Your task to perform on an android device: turn vacation reply on in the gmail app Image 0: 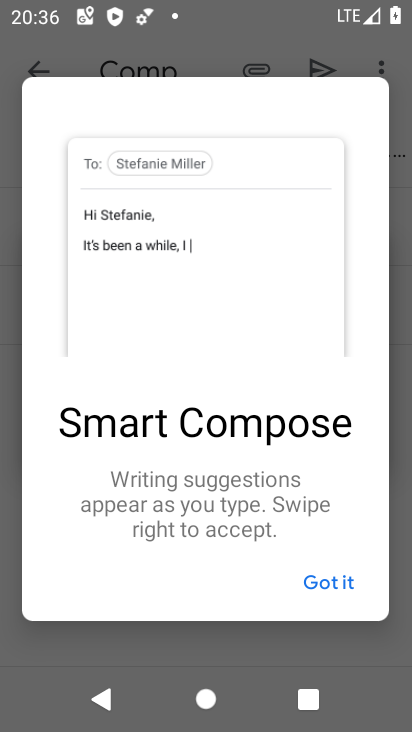
Step 0: press home button
Your task to perform on an android device: turn vacation reply on in the gmail app Image 1: 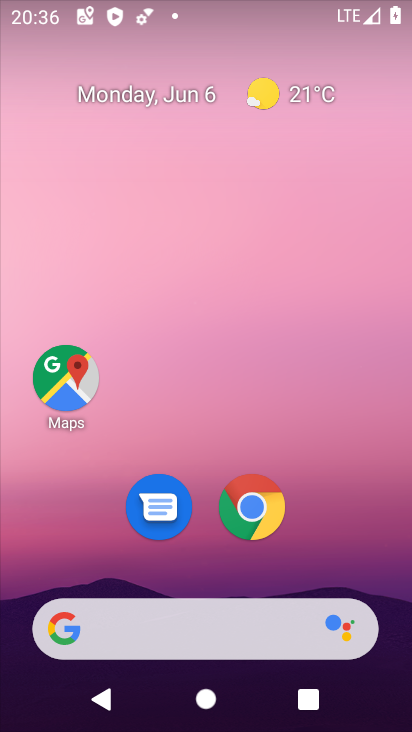
Step 1: drag from (211, 568) to (265, 11)
Your task to perform on an android device: turn vacation reply on in the gmail app Image 2: 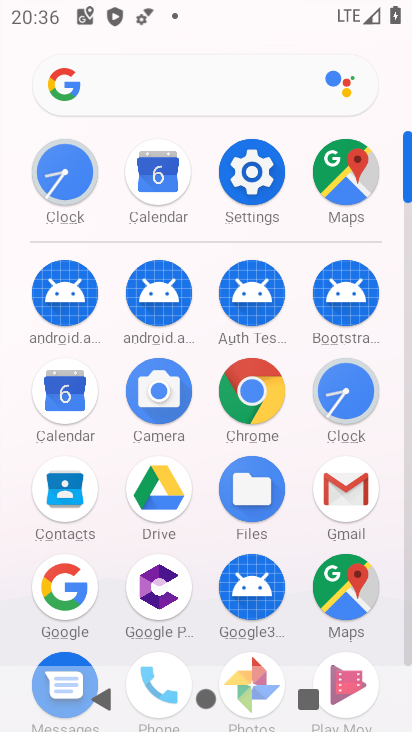
Step 2: click (351, 495)
Your task to perform on an android device: turn vacation reply on in the gmail app Image 3: 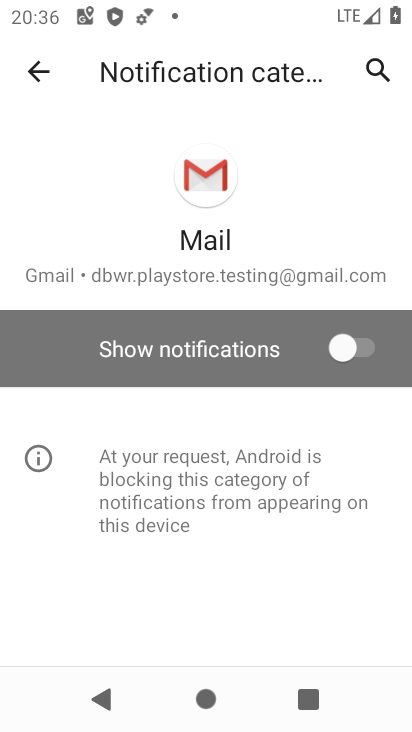
Step 3: click (46, 74)
Your task to perform on an android device: turn vacation reply on in the gmail app Image 4: 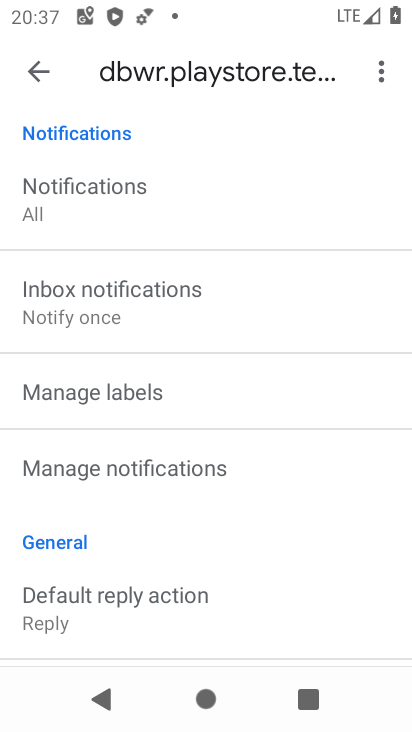
Step 4: drag from (149, 640) to (187, 132)
Your task to perform on an android device: turn vacation reply on in the gmail app Image 5: 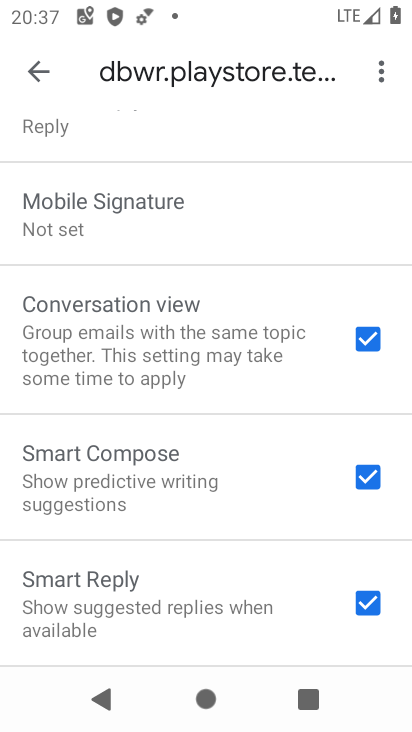
Step 5: drag from (155, 561) to (171, 134)
Your task to perform on an android device: turn vacation reply on in the gmail app Image 6: 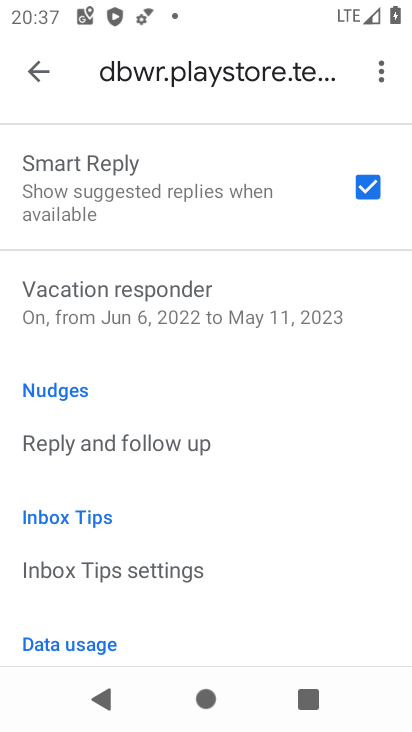
Step 6: click (170, 309)
Your task to perform on an android device: turn vacation reply on in the gmail app Image 7: 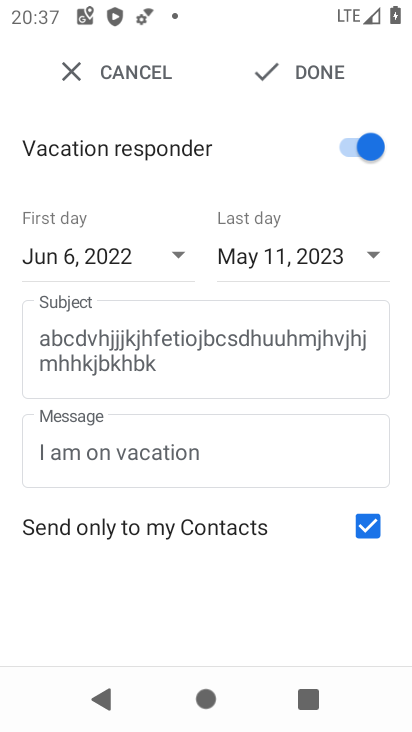
Step 7: task complete